Your task to perform on an android device: Open Reddit.com Image 0: 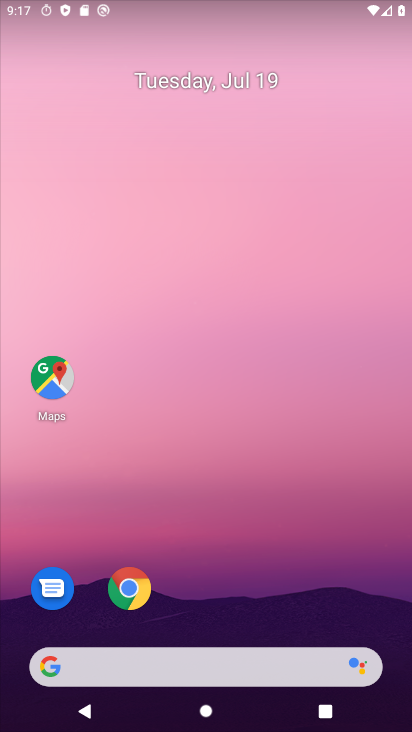
Step 0: press home button
Your task to perform on an android device: Open Reddit.com Image 1: 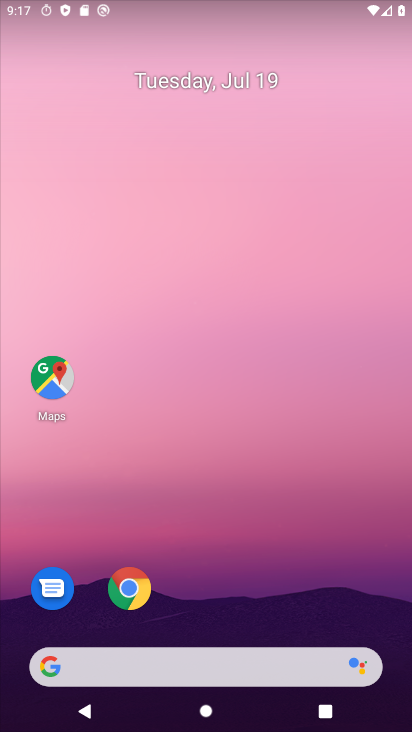
Step 1: click (126, 585)
Your task to perform on an android device: Open Reddit.com Image 2: 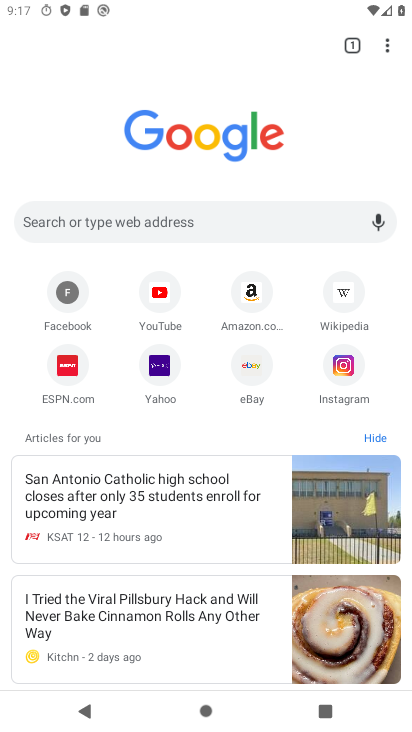
Step 2: click (94, 216)
Your task to perform on an android device: Open Reddit.com Image 3: 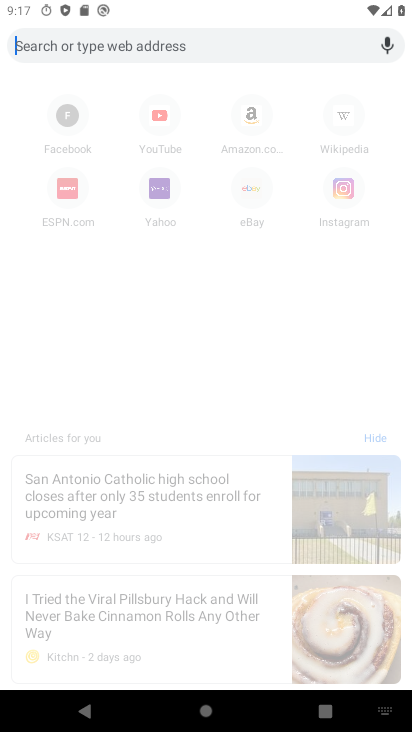
Step 3: type "reddit.com"
Your task to perform on an android device: Open Reddit.com Image 4: 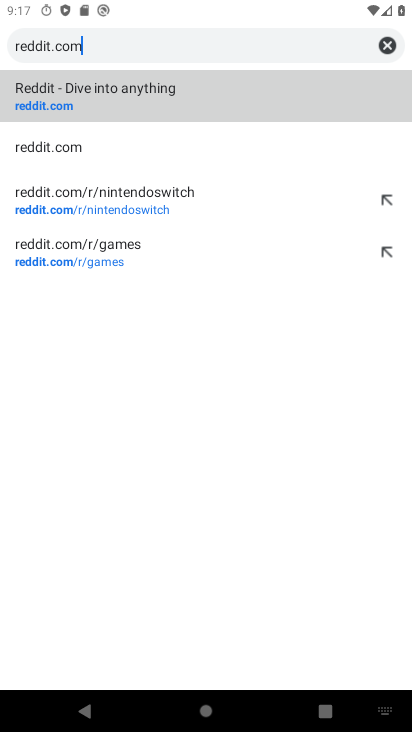
Step 4: click (71, 100)
Your task to perform on an android device: Open Reddit.com Image 5: 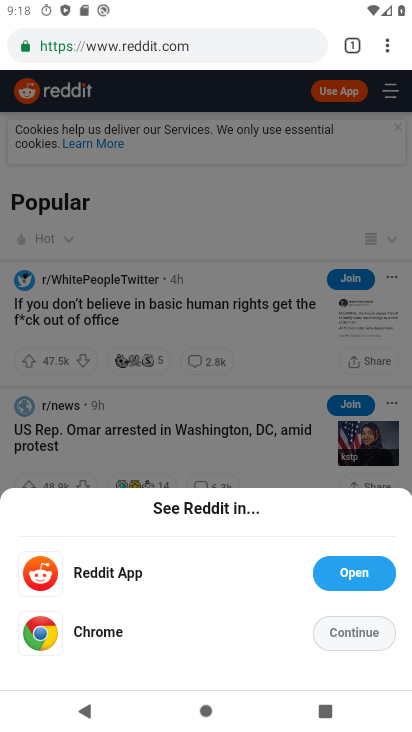
Step 5: click (353, 630)
Your task to perform on an android device: Open Reddit.com Image 6: 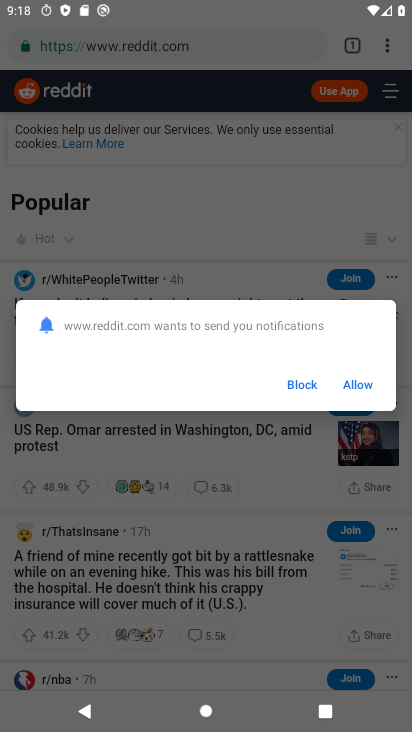
Step 6: click (361, 390)
Your task to perform on an android device: Open Reddit.com Image 7: 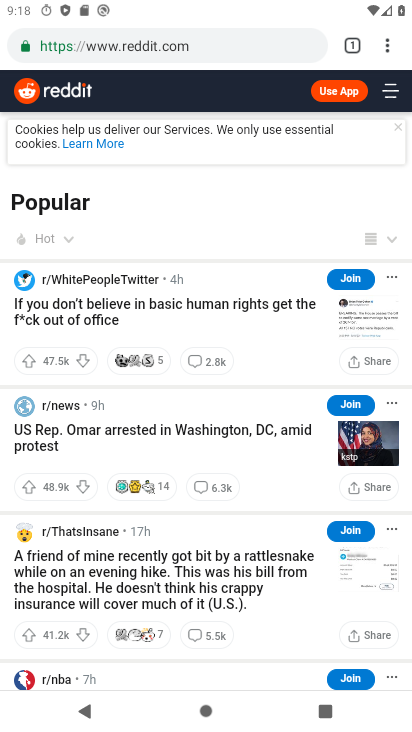
Step 7: task complete